Your task to perform on an android device: Open settings Image 0: 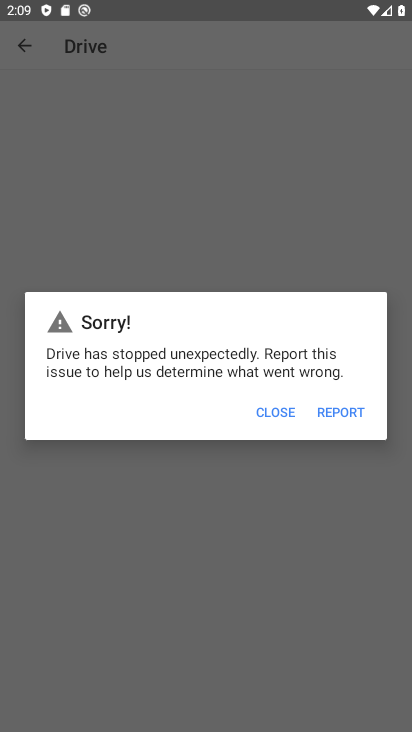
Step 0: press home button
Your task to perform on an android device: Open settings Image 1: 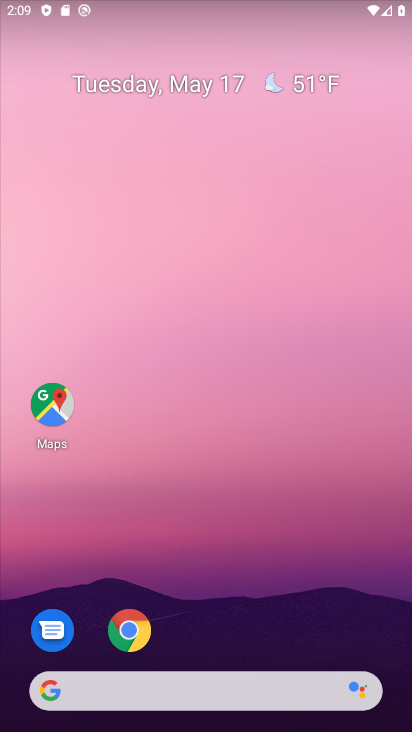
Step 1: drag from (227, 359) to (238, 17)
Your task to perform on an android device: Open settings Image 2: 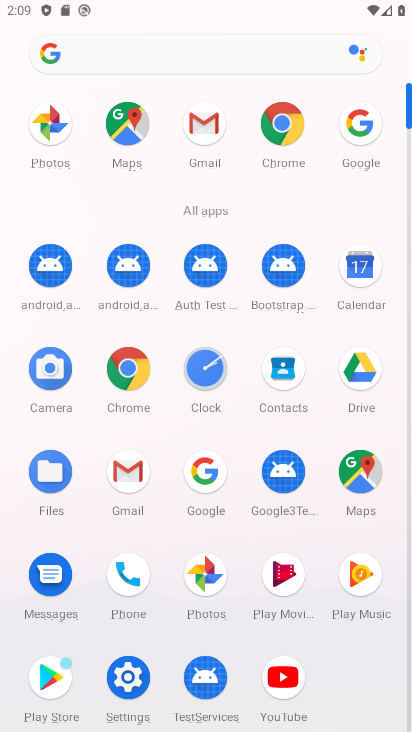
Step 2: click (130, 680)
Your task to perform on an android device: Open settings Image 3: 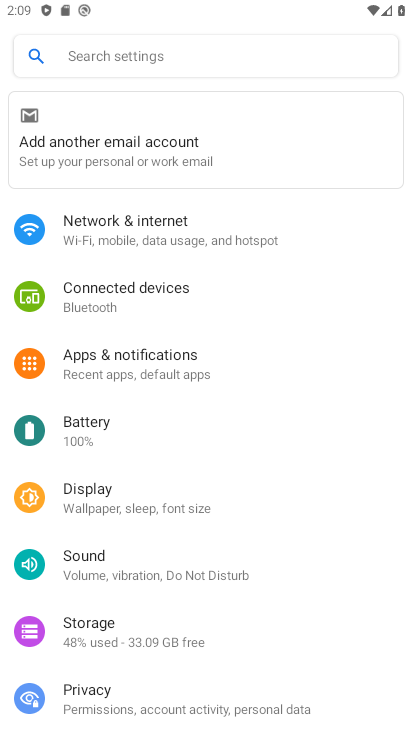
Step 3: task complete